Your task to perform on an android device: Go to eBay Image 0: 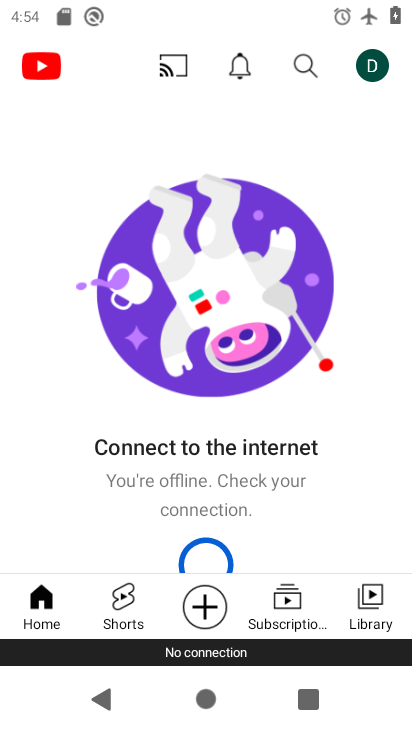
Step 0: press home button
Your task to perform on an android device: Go to eBay Image 1: 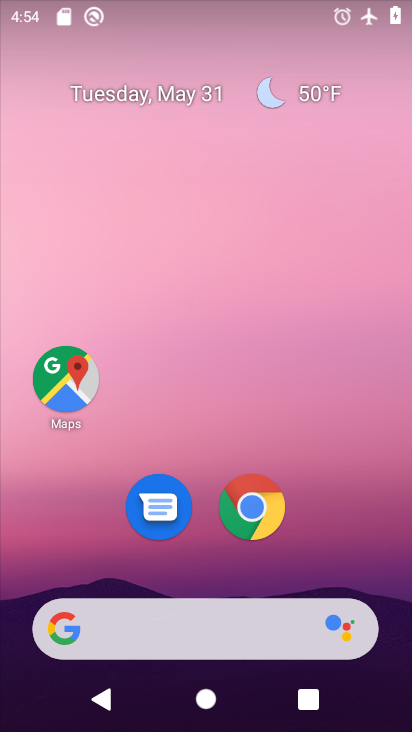
Step 1: click (218, 633)
Your task to perform on an android device: Go to eBay Image 2: 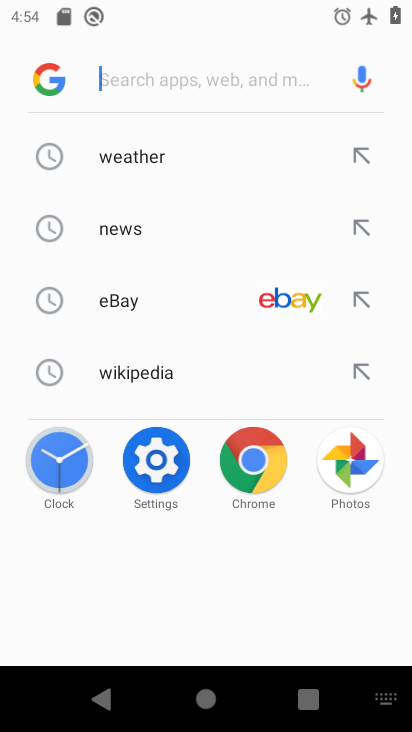
Step 2: click (121, 294)
Your task to perform on an android device: Go to eBay Image 3: 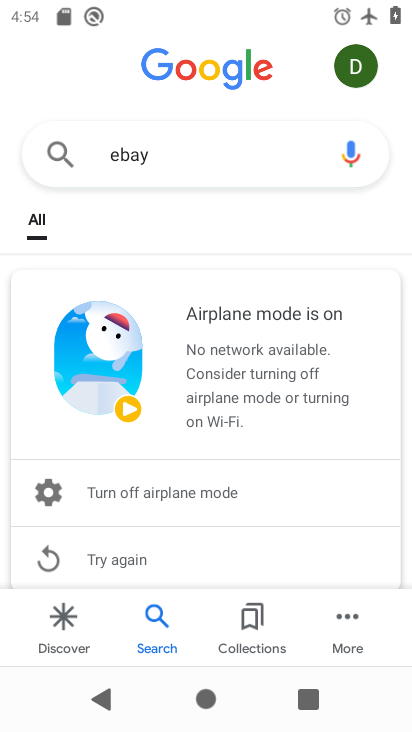
Step 3: task complete